Your task to perform on an android device: Go to Maps Image 0: 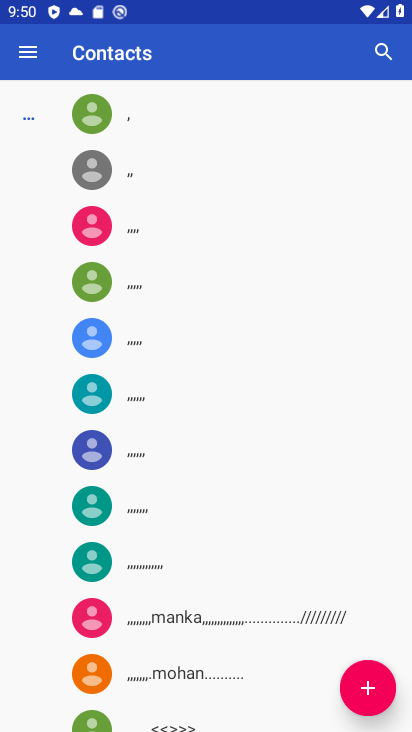
Step 0: press home button
Your task to perform on an android device: Go to Maps Image 1: 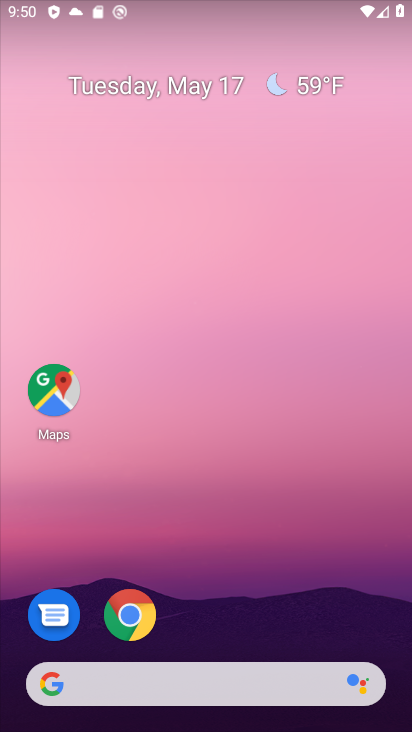
Step 1: drag from (241, 628) to (263, 273)
Your task to perform on an android device: Go to Maps Image 2: 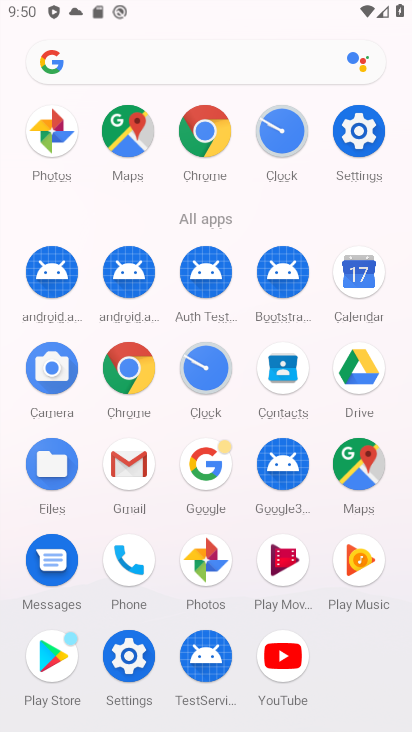
Step 2: click (360, 476)
Your task to perform on an android device: Go to Maps Image 3: 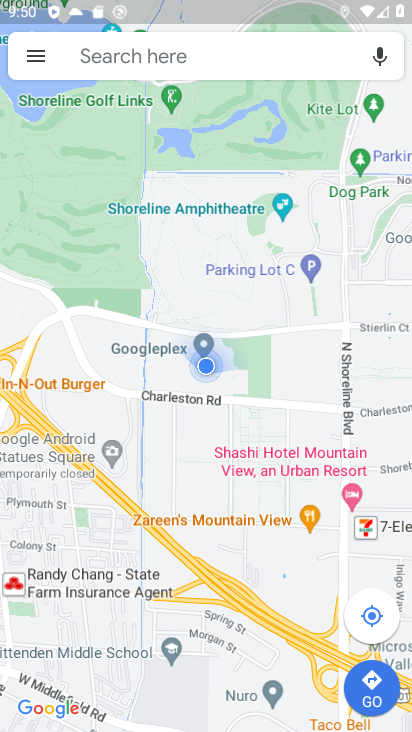
Step 3: task complete